Your task to perform on an android device: change the clock style Image 0: 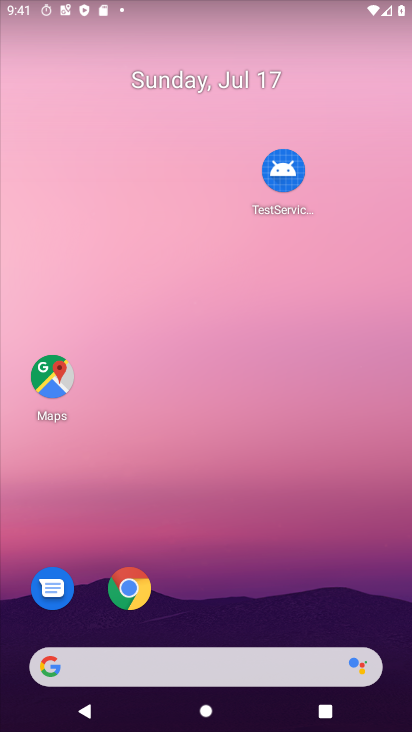
Step 0: drag from (198, 593) to (320, 97)
Your task to perform on an android device: change the clock style Image 1: 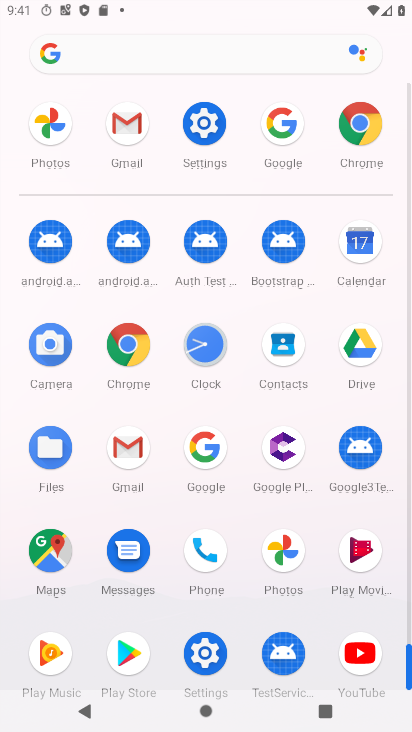
Step 1: click (212, 340)
Your task to perform on an android device: change the clock style Image 2: 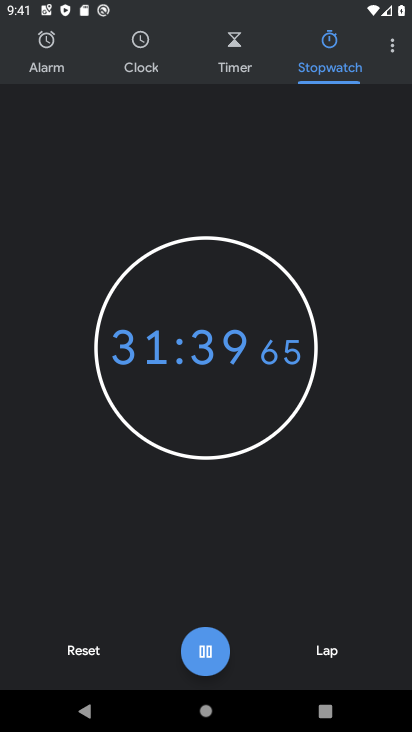
Step 2: click (390, 48)
Your task to perform on an android device: change the clock style Image 3: 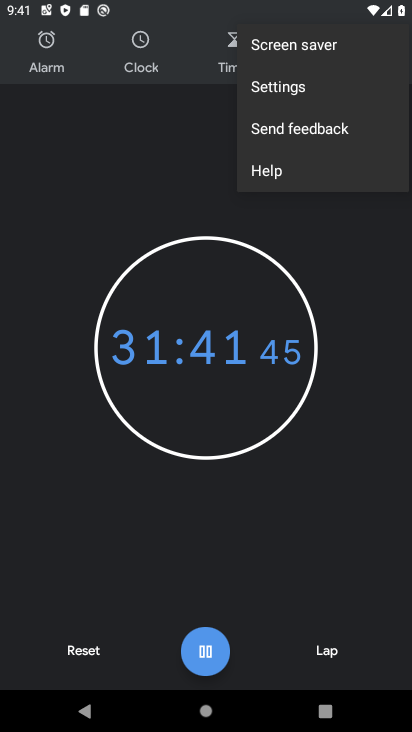
Step 3: click (261, 99)
Your task to perform on an android device: change the clock style Image 4: 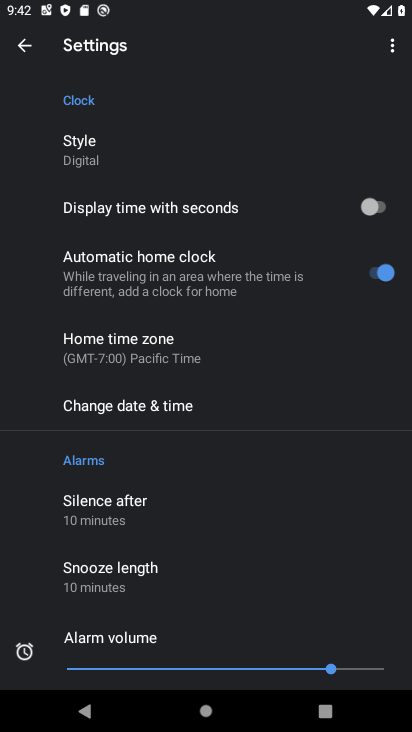
Step 4: click (115, 161)
Your task to perform on an android device: change the clock style Image 5: 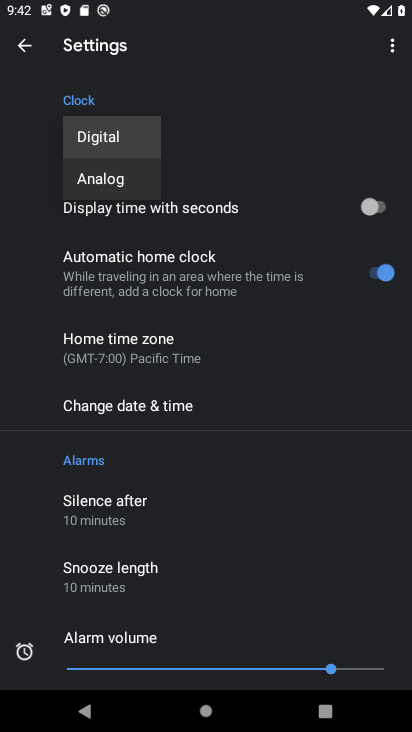
Step 5: click (122, 180)
Your task to perform on an android device: change the clock style Image 6: 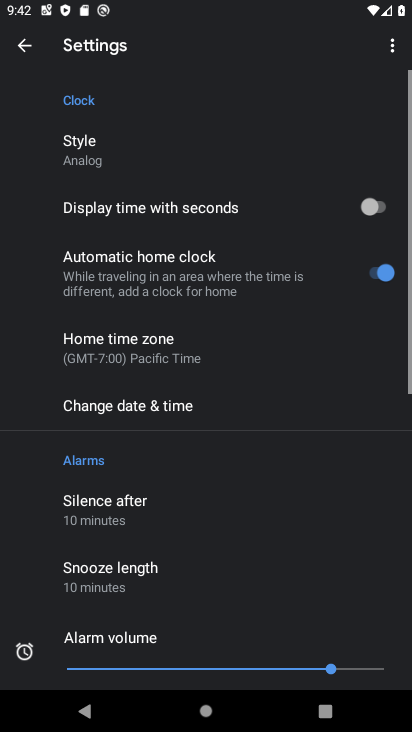
Step 6: task complete